Your task to perform on an android device: turn off improve location accuracy Image 0: 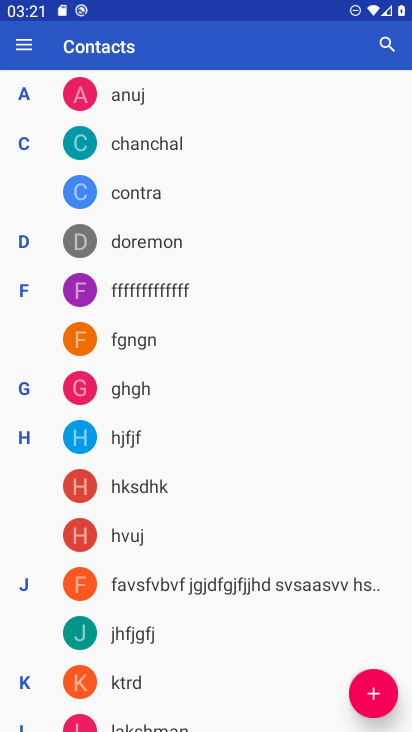
Step 0: press home button
Your task to perform on an android device: turn off improve location accuracy Image 1: 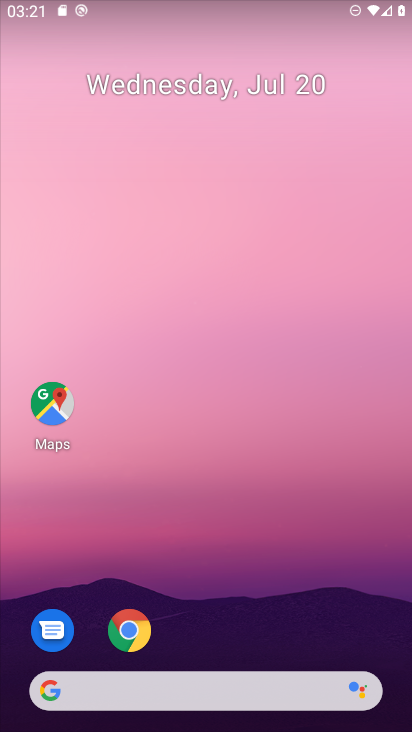
Step 1: drag from (386, 589) to (393, 160)
Your task to perform on an android device: turn off improve location accuracy Image 2: 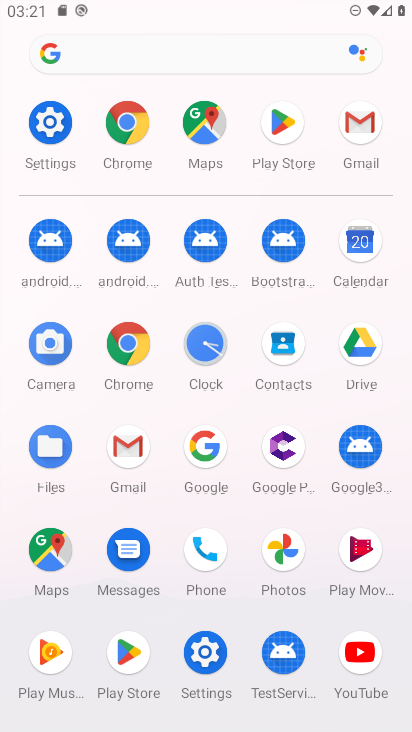
Step 2: click (59, 136)
Your task to perform on an android device: turn off improve location accuracy Image 3: 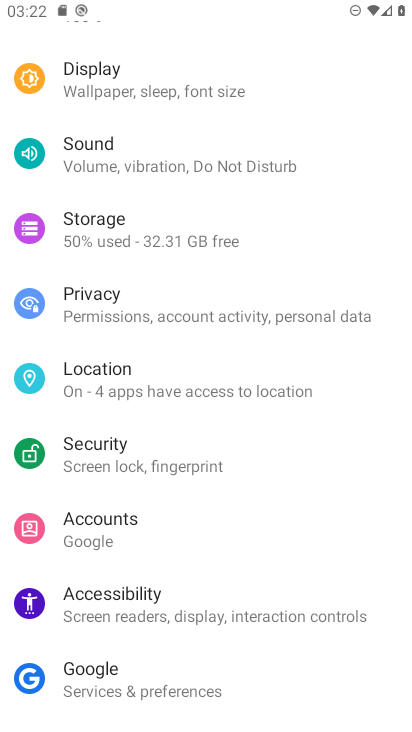
Step 3: drag from (343, 221) to (349, 323)
Your task to perform on an android device: turn off improve location accuracy Image 4: 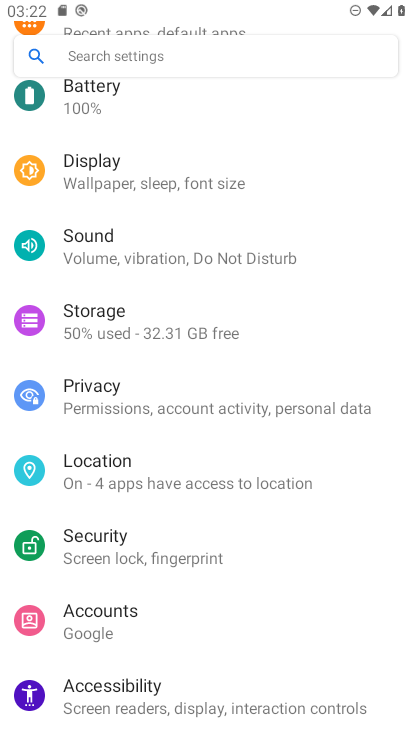
Step 4: drag from (369, 193) to (370, 317)
Your task to perform on an android device: turn off improve location accuracy Image 5: 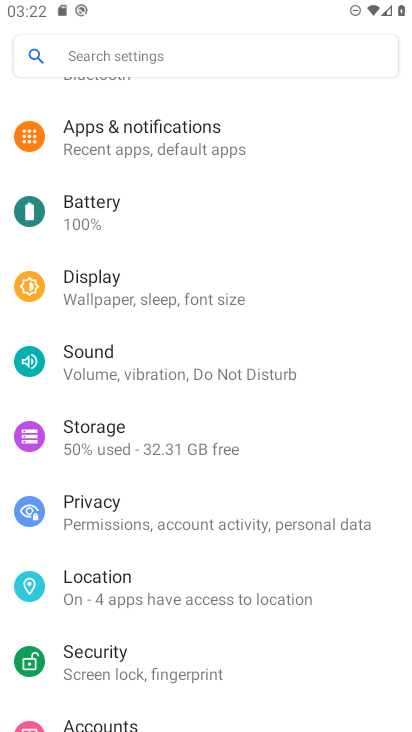
Step 5: drag from (365, 196) to (369, 319)
Your task to perform on an android device: turn off improve location accuracy Image 6: 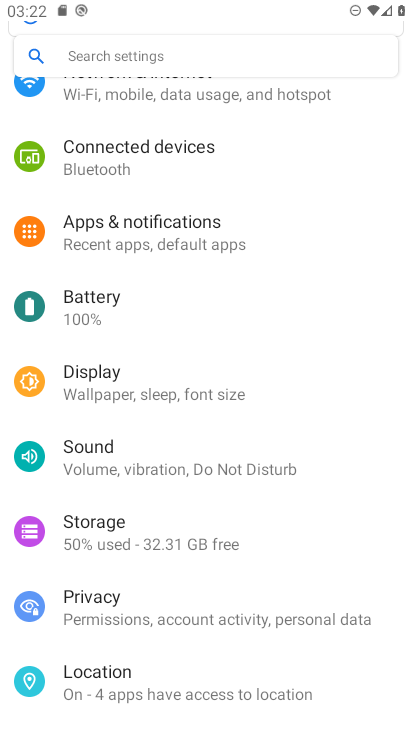
Step 6: click (170, 677)
Your task to perform on an android device: turn off improve location accuracy Image 7: 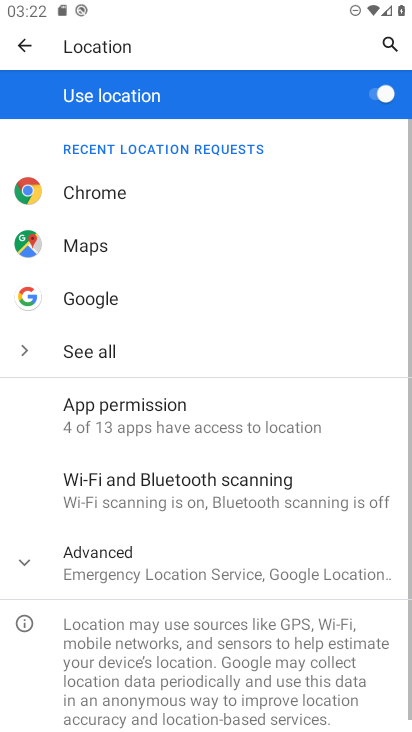
Step 7: click (215, 565)
Your task to perform on an android device: turn off improve location accuracy Image 8: 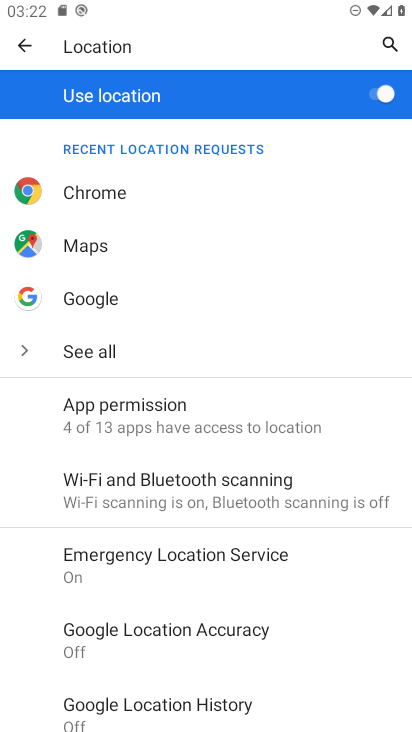
Step 8: click (199, 632)
Your task to perform on an android device: turn off improve location accuracy Image 9: 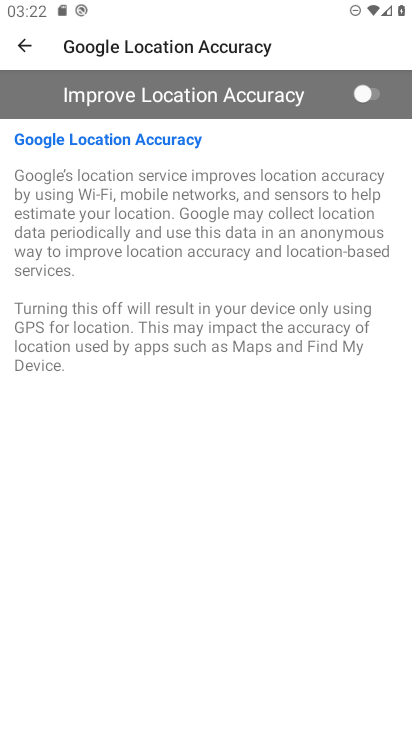
Step 9: task complete